Your task to perform on an android device: Set the phone to "Do not disturb". Image 0: 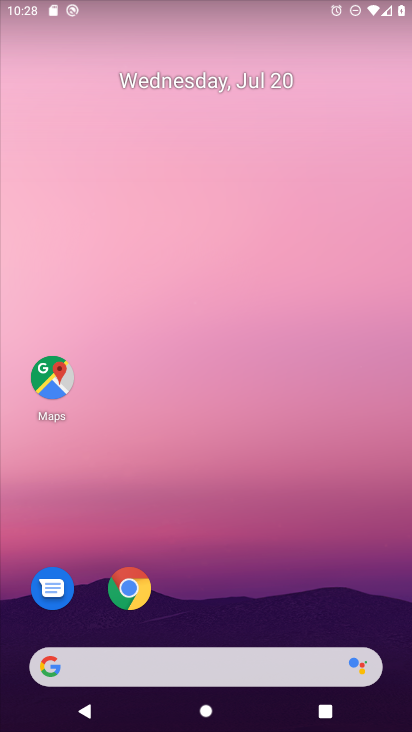
Step 0: drag from (166, 6) to (183, 658)
Your task to perform on an android device: Set the phone to "Do not disturb". Image 1: 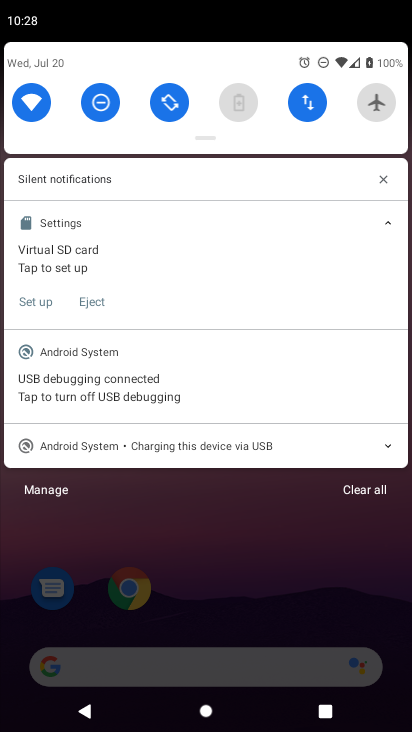
Step 1: task complete